Your task to perform on an android device: turn off translation in the chrome app Image 0: 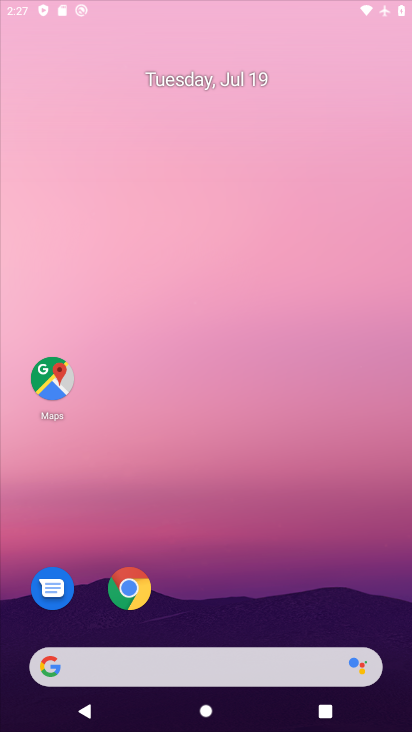
Step 0: press home button
Your task to perform on an android device: turn off translation in the chrome app Image 1: 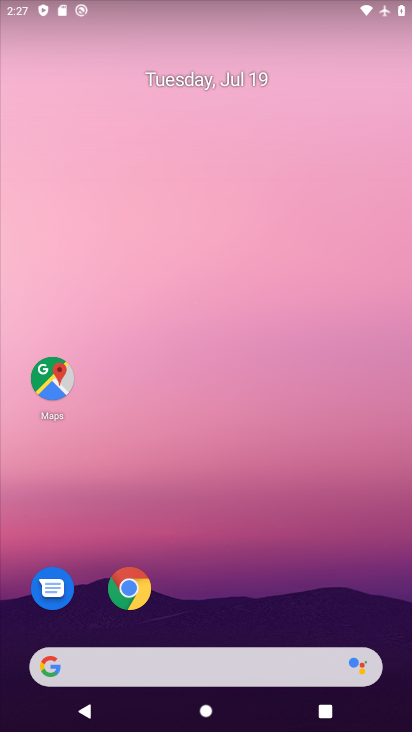
Step 1: drag from (283, 570) to (335, 82)
Your task to perform on an android device: turn off translation in the chrome app Image 2: 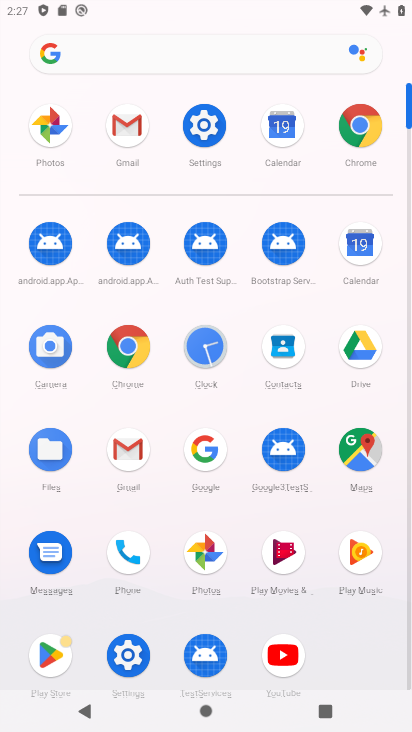
Step 2: click (361, 131)
Your task to perform on an android device: turn off translation in the chrome app Image 3: 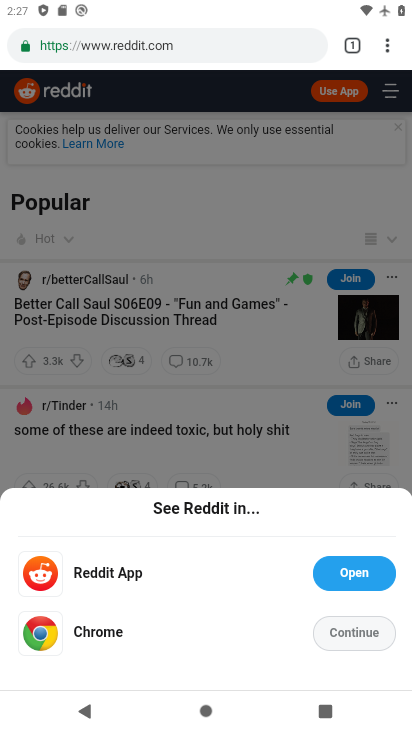
Step 3: drag from (393, 46) to (232, 517)
Your task to perform on an android device: turn off translation in the chrome app Image 4: 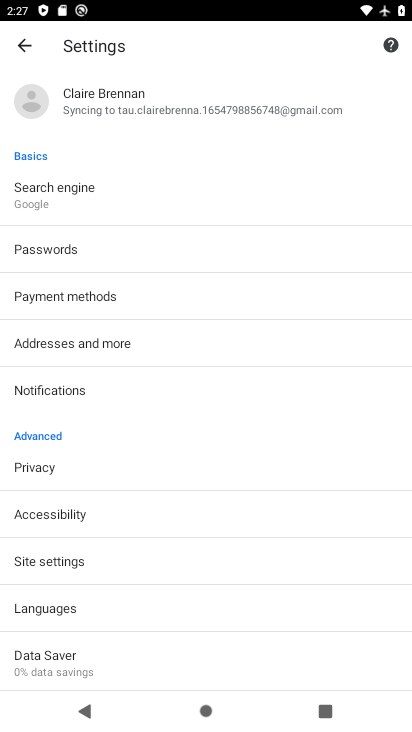
Step 4: click (44, 607)
Your task to perform on an android device: turn off translation in the chrome app Image 5: 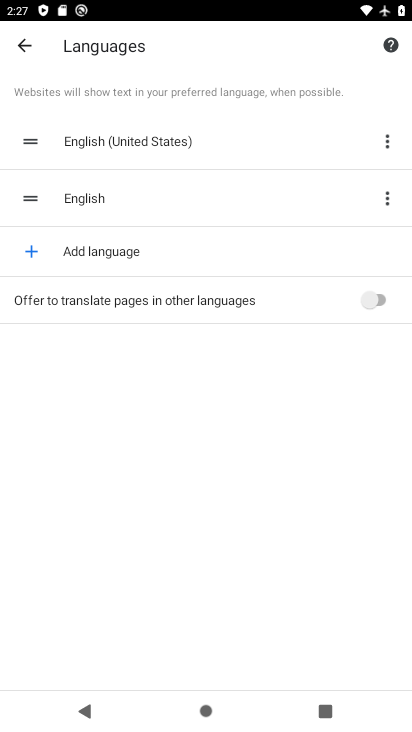
Step 5: task complete